Your task to perform on an android device: clear history in the chrome app Image 0: 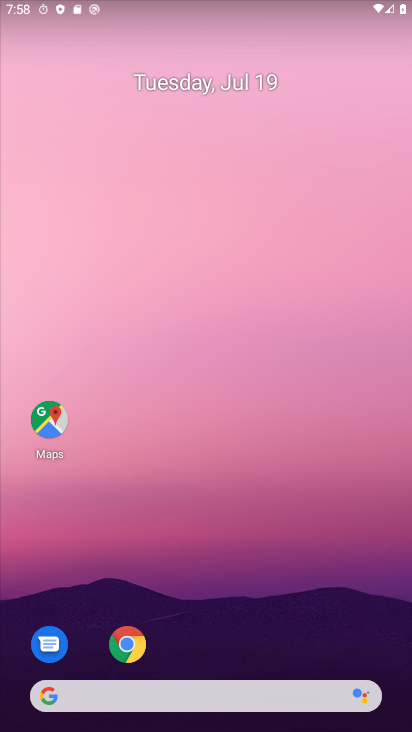
Step 0: click (129, 649)
Your task to perform on an android device: clear history in the chrome app Image 1: 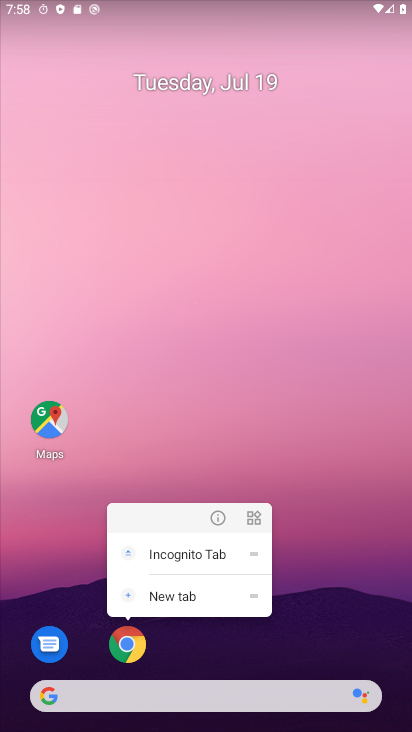
Step 1: click (127, 645)
Your task to perform on an android device: clear history in the chrome app Image 2: 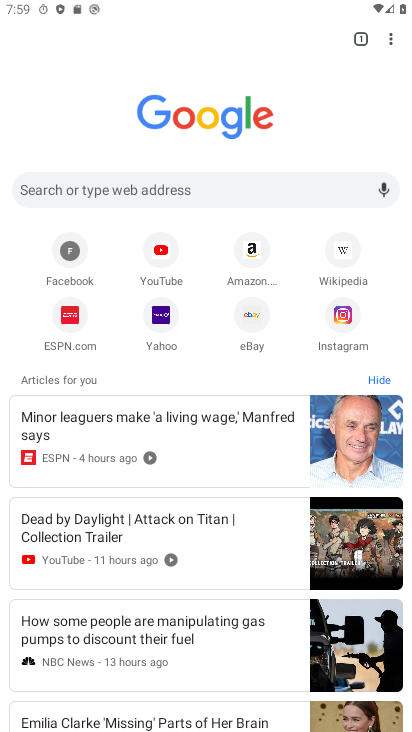
Step 2: click (391, 33)
Your task to perform on an android device: clear history in the chrome app Image 3: 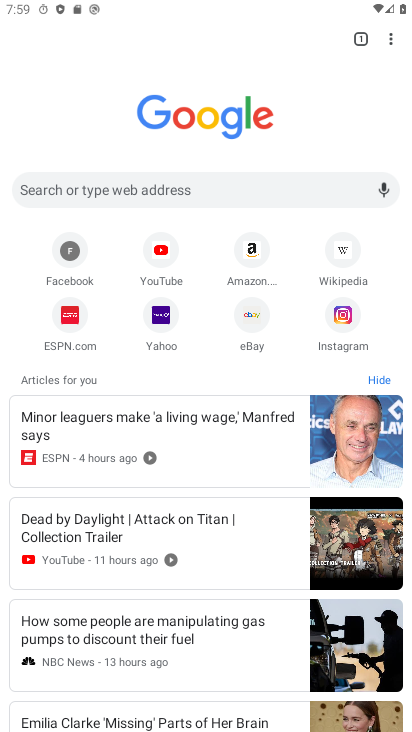
Step 3: click (391, 43)
Your task to perform on an android device: clear history in the chrome app Image 4: 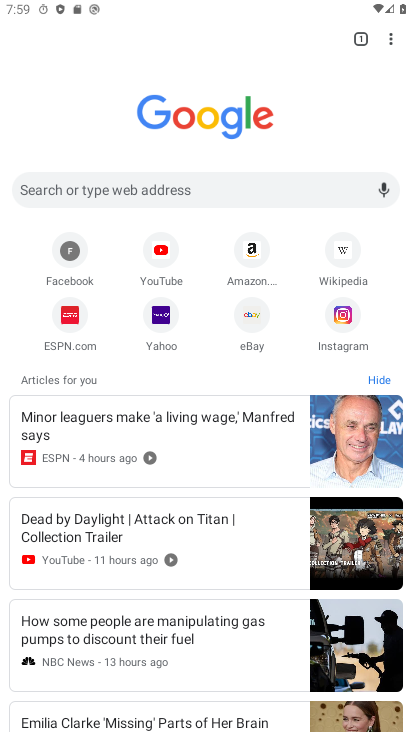
Step 4: click (389, 35)
Your task to perform on an android device: clear history in the chrome app Image 5: 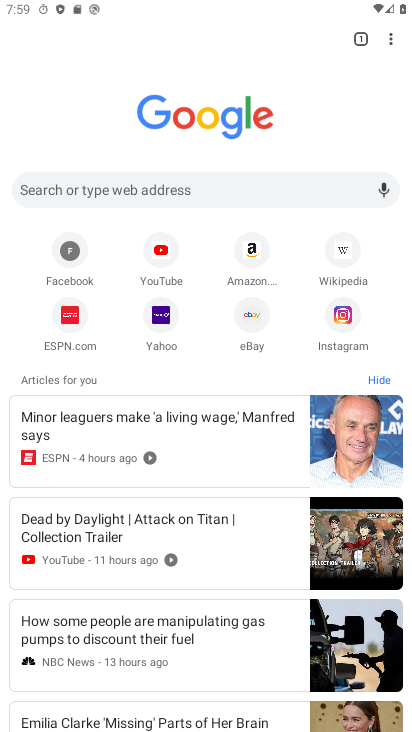
Step 5: click (391, 37)
Your task to perform on an android device: clear history in the chrome app Image 6: 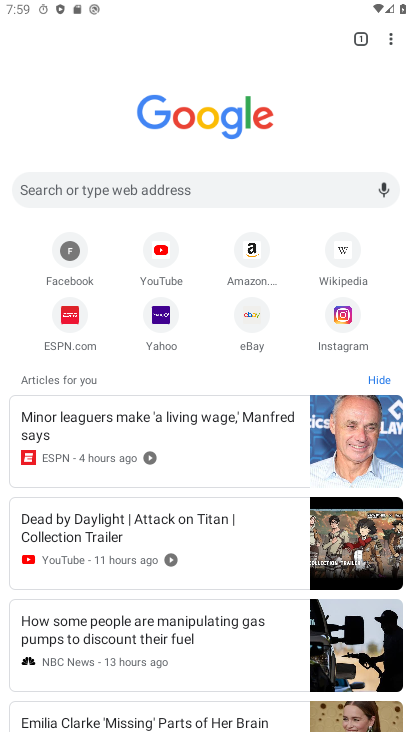
Step 6: task complete